Your task to perform on an android device: Go to notification settings Image 0: 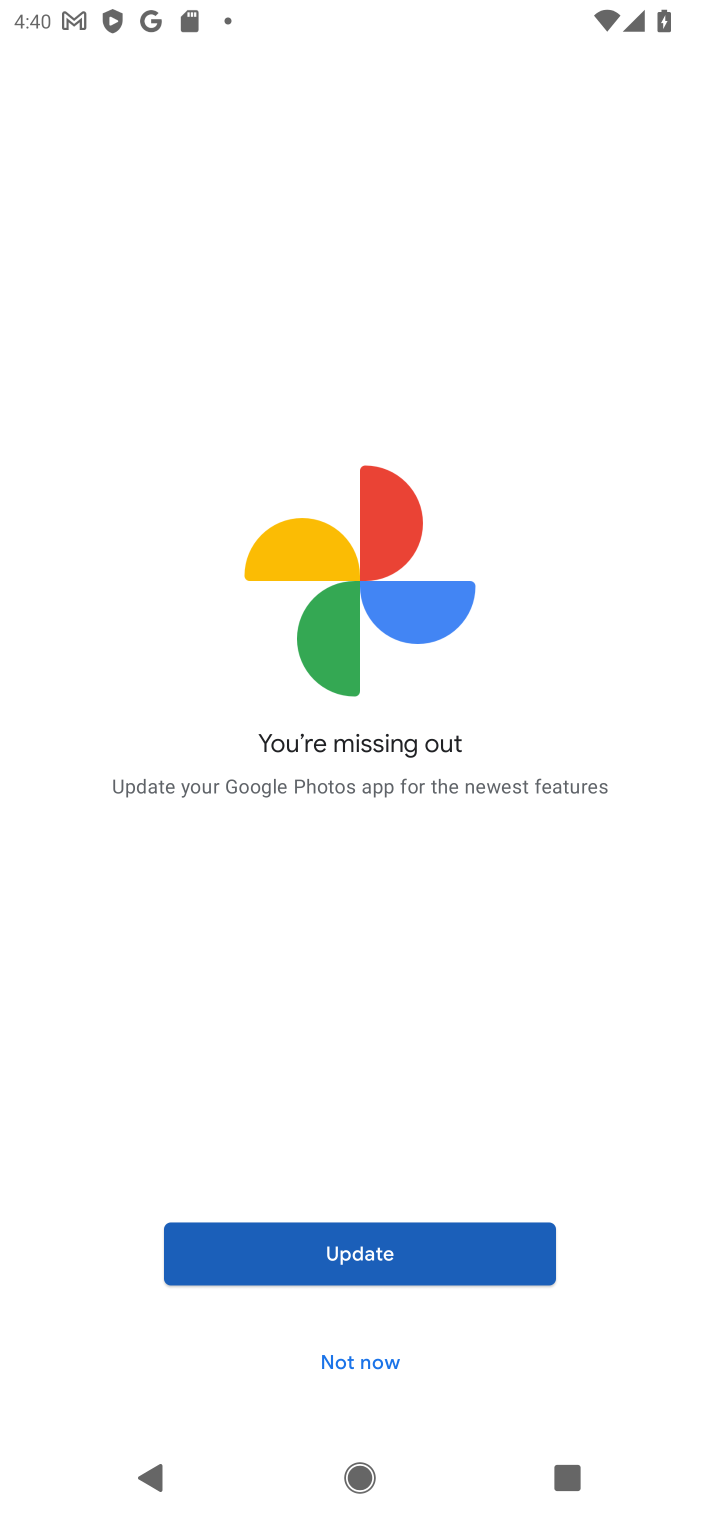
Step 0: press home button
Your task to perform on an android device: Go to notification settings Image 1: 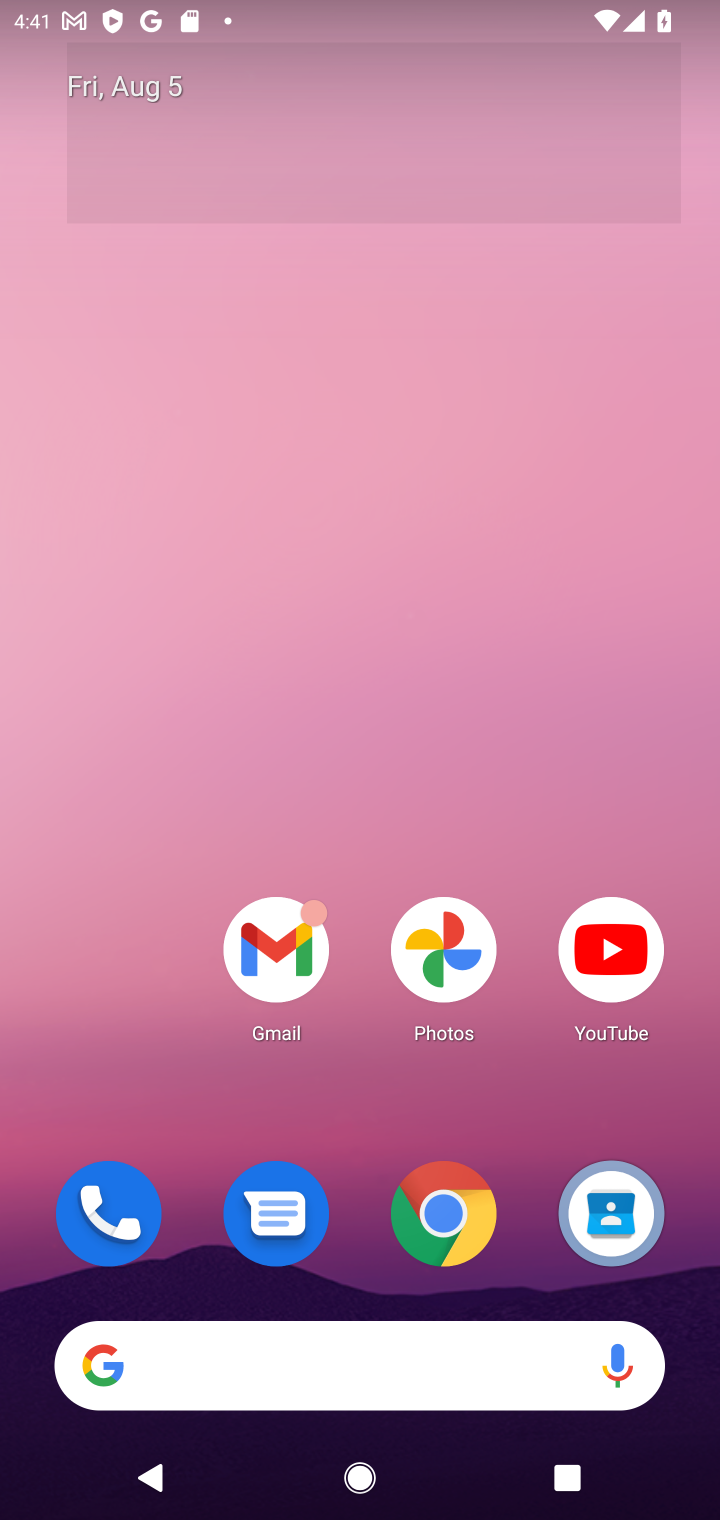
Step 1: drag from (356, 1287) to (381, 26)
Your task to perform on an android device: Go to notification settings Image 2: 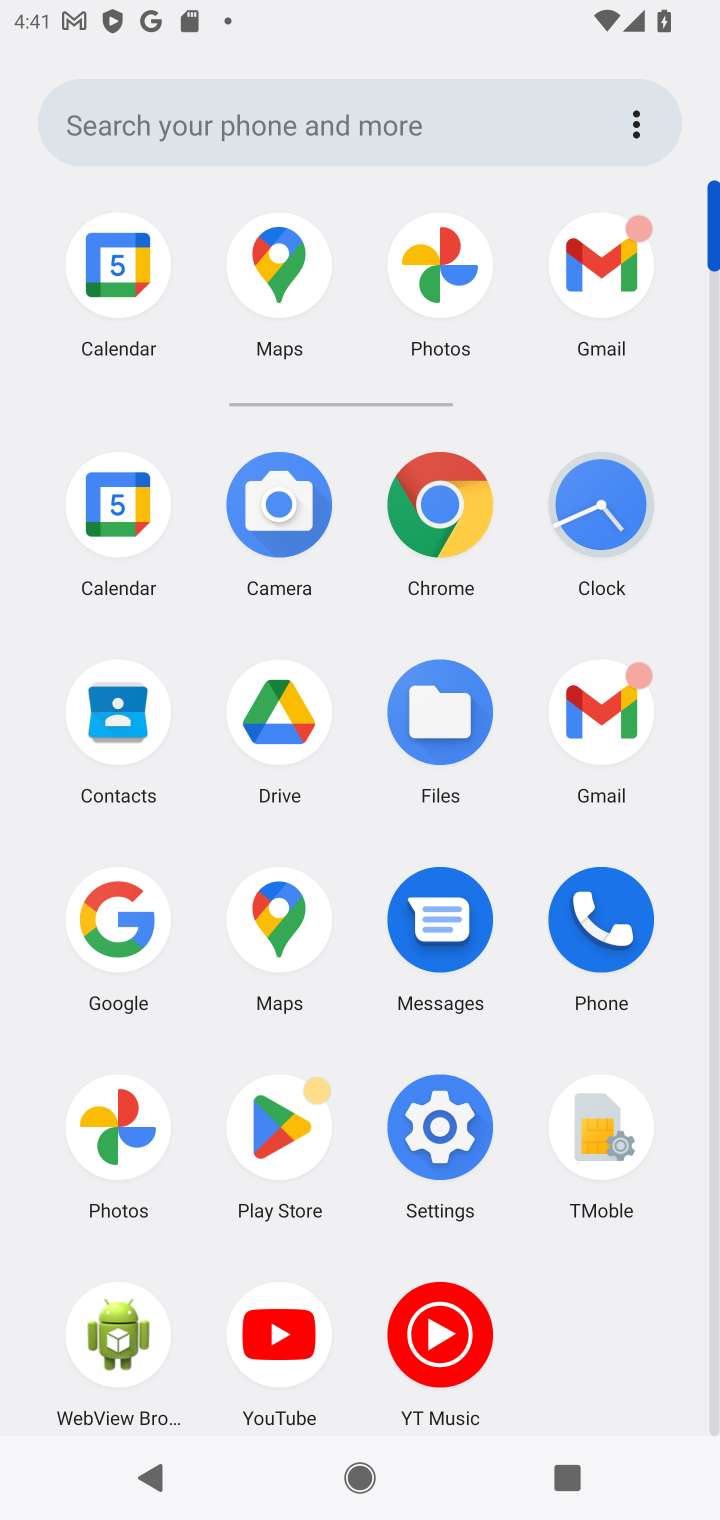
Step 2: click (479, 1159)
Your task to perform on an android device: Go to notification settings Image 3: 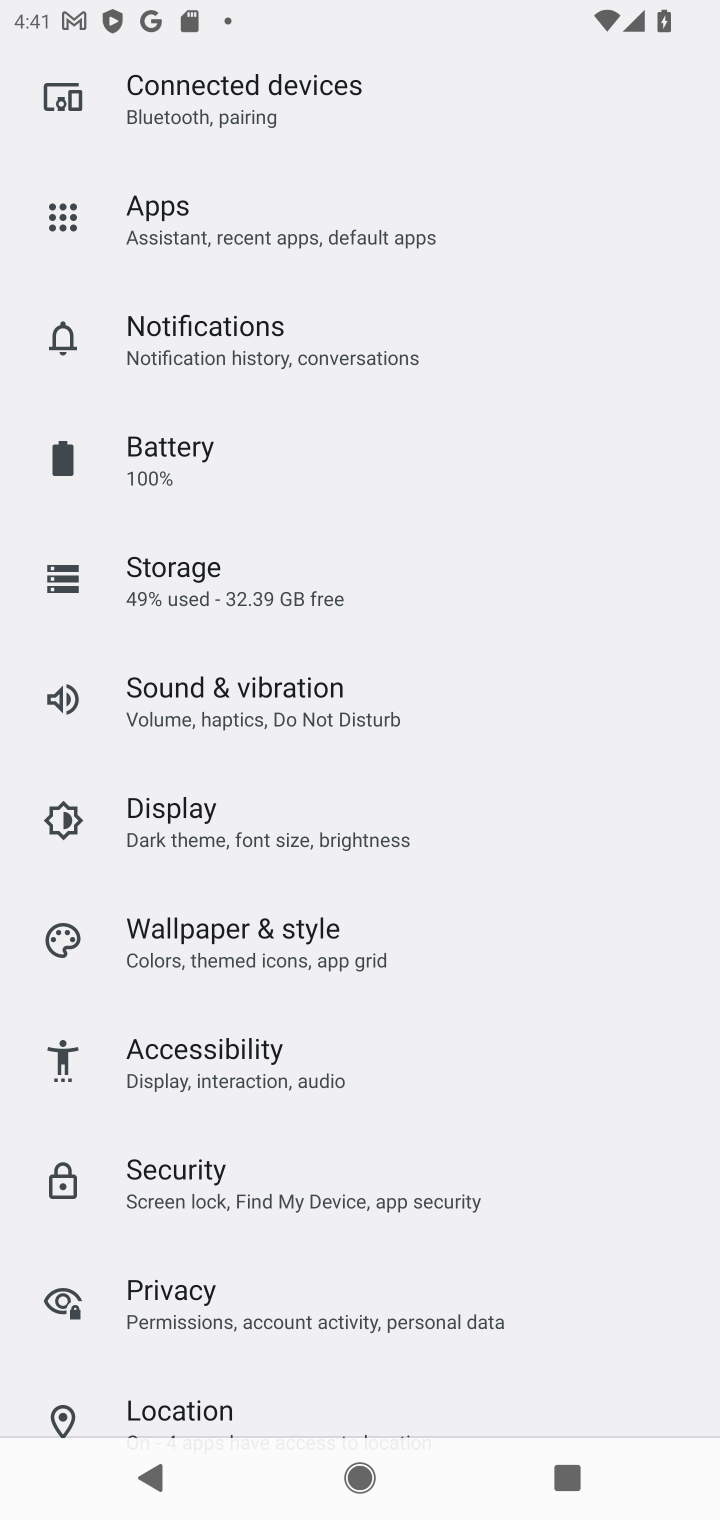
Step 3: click (365, 339)
Your task to perform on an android device: Go to notification settings Image 4: 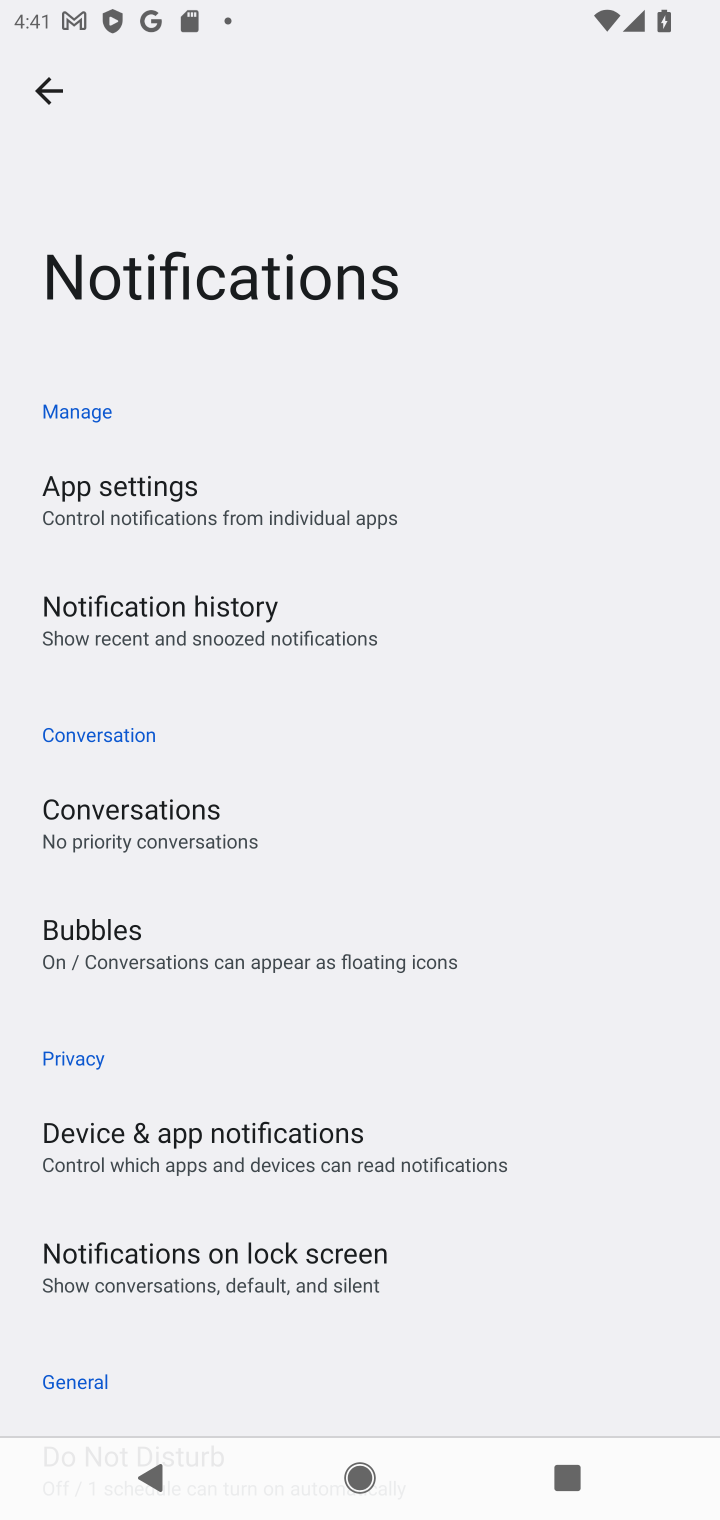
Step 4: task complete